Your task to perform on an android device: find snoozed emails in the gmail app Image 0: 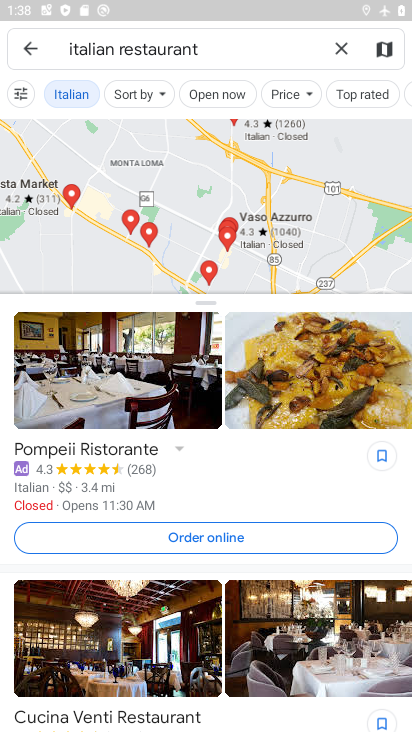
Step 0: press home button
Your task to perform on an android device: find snoozed emails in the gmail app Image 1: 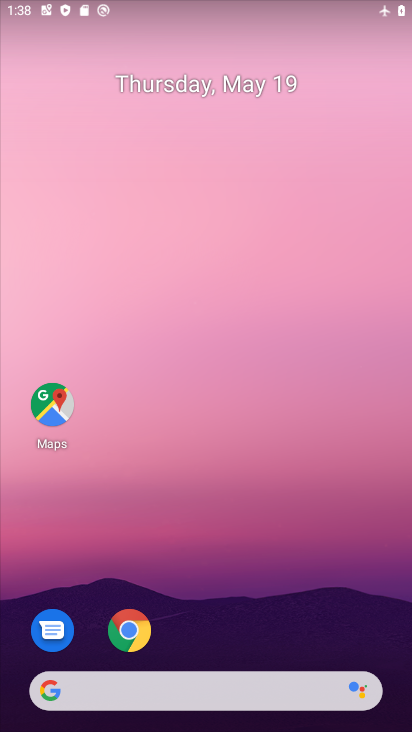
Step 1: drag from (220, 673) to (156, 44)
Your task to perform on an android device: find snoozed emails in the gmail app Image 2: 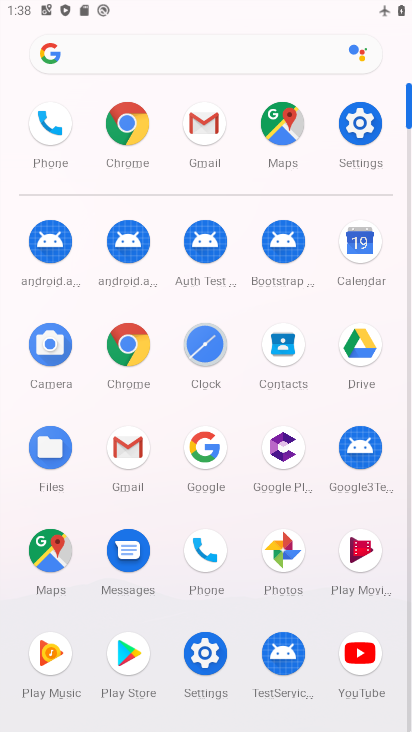
Step 2: click (131, 437)
Your task to perform on an android device: find snoozed emails in the gmail app Image 3: 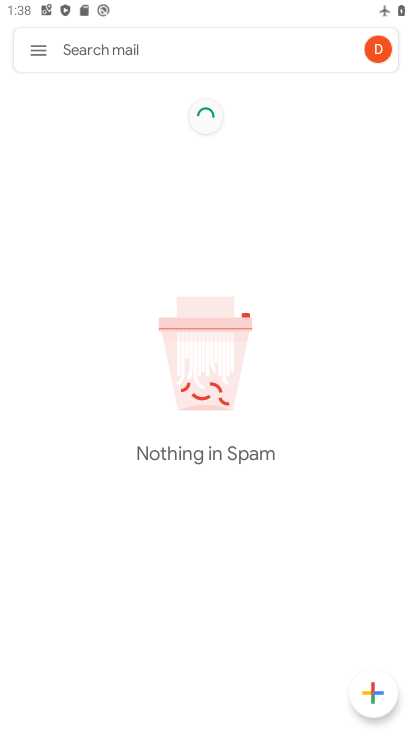
Step 3: click (44, 42)
Your task to perform on an android device: find snoozed emails in the gmail app Image 4: 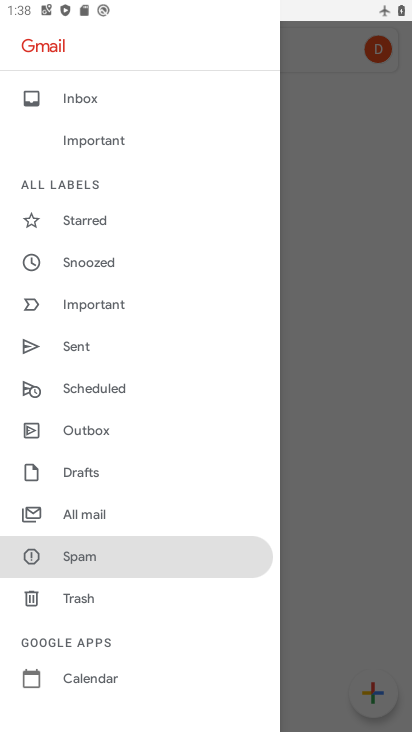
Step 4: click (115, 272)
Your task to perform on an android device: find snoozed emails in the gmail app Image 5: 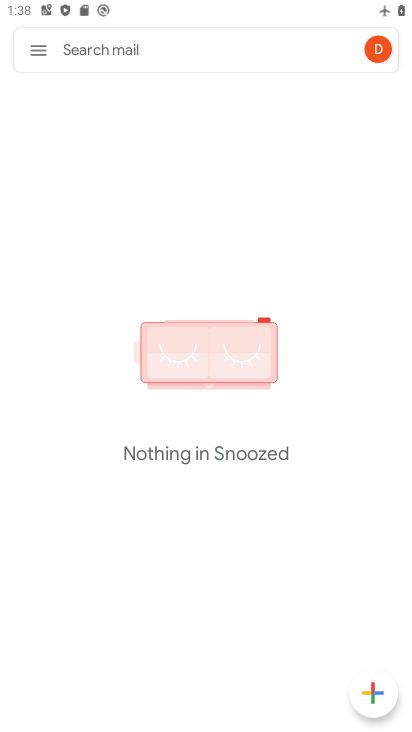
Step 5: task complete